Your task to perform on an android device: Open the calendar and show me this week's events? Image 0: 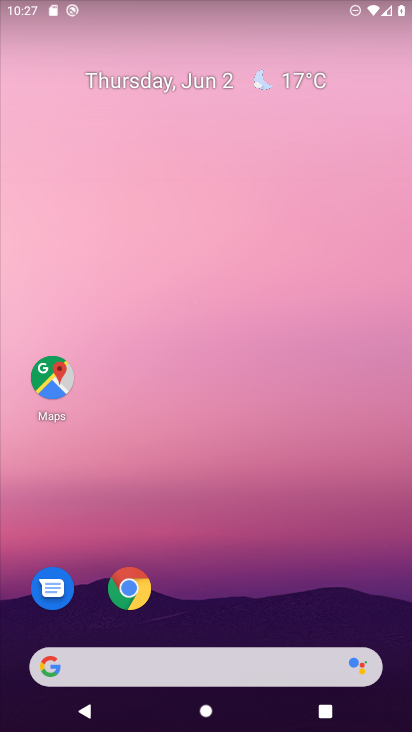
Step 0: drag from (217, 572) to (250, 258)
Your task to perform on an android device: Open the calendar and show me this week's events? Image 1: 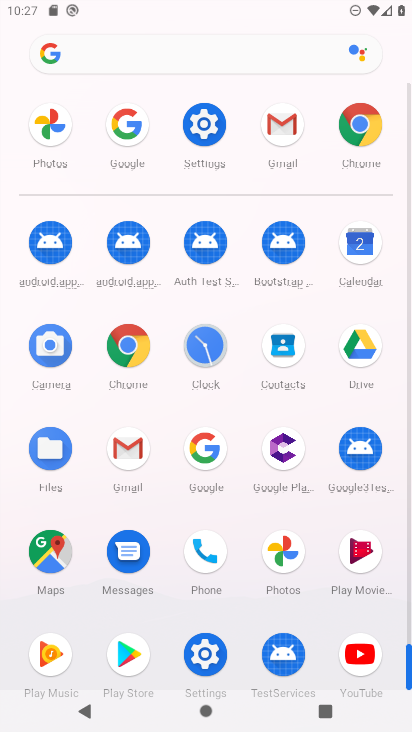
Step 1: click (363, 254)
Your task to perform on an android device: Open the calendar and show me this week's events? Image 2: 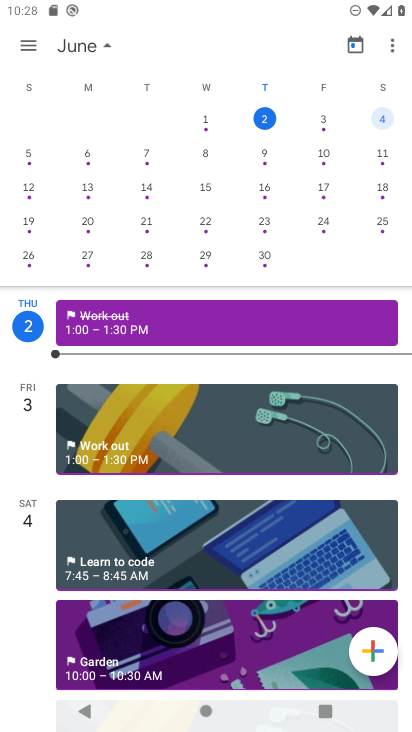
Step 2: click (267, 117)
Your task to perform on an android device: Open the calendar and show me this week's events? Image 3: 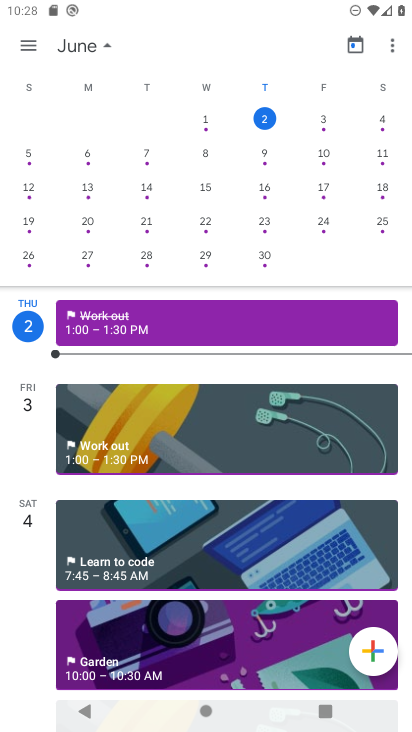
Step 3: task complete